Your task to perform on an android device: toggle show notifications on the lock screen Image 0: 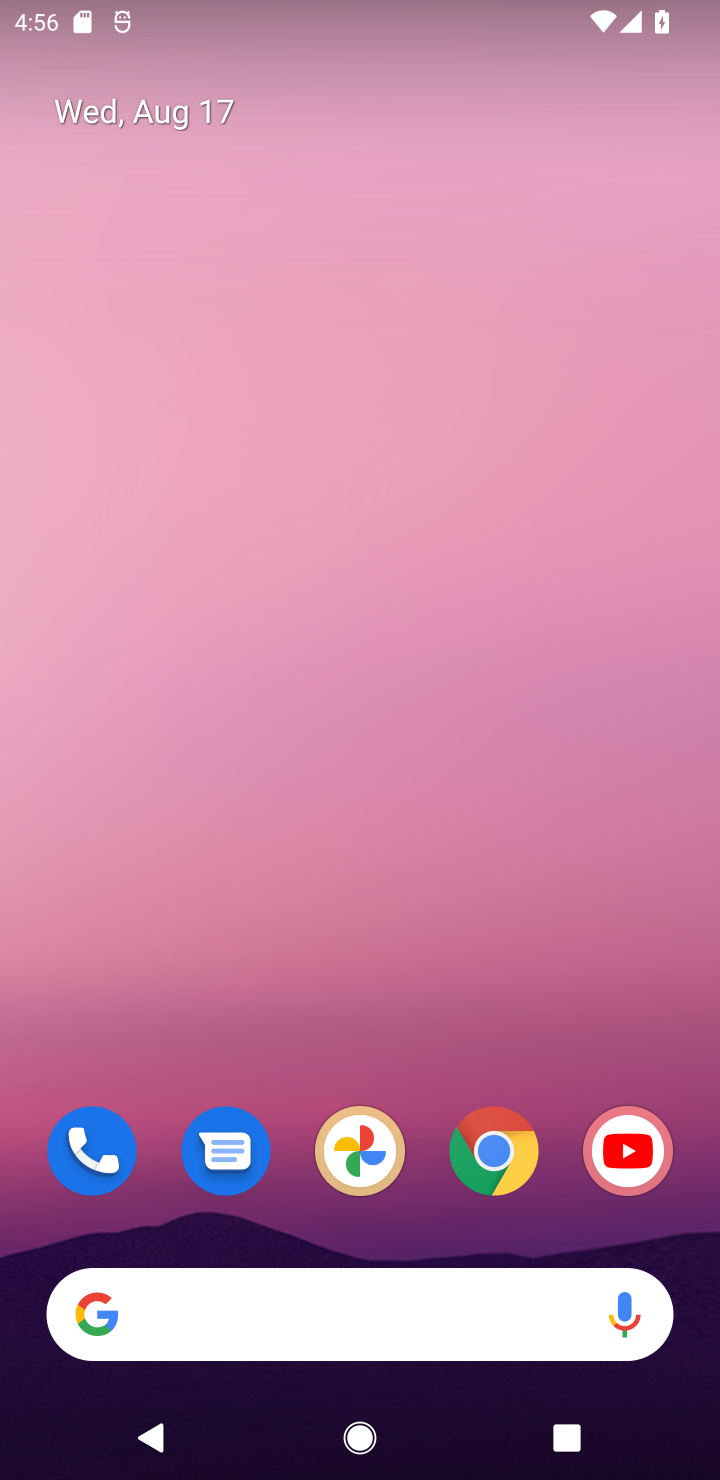
Step 0: drag from (441, 1228) to (612, 389)
Your task to perform on an android device: toggle show notifications on the lock screen Image 1: 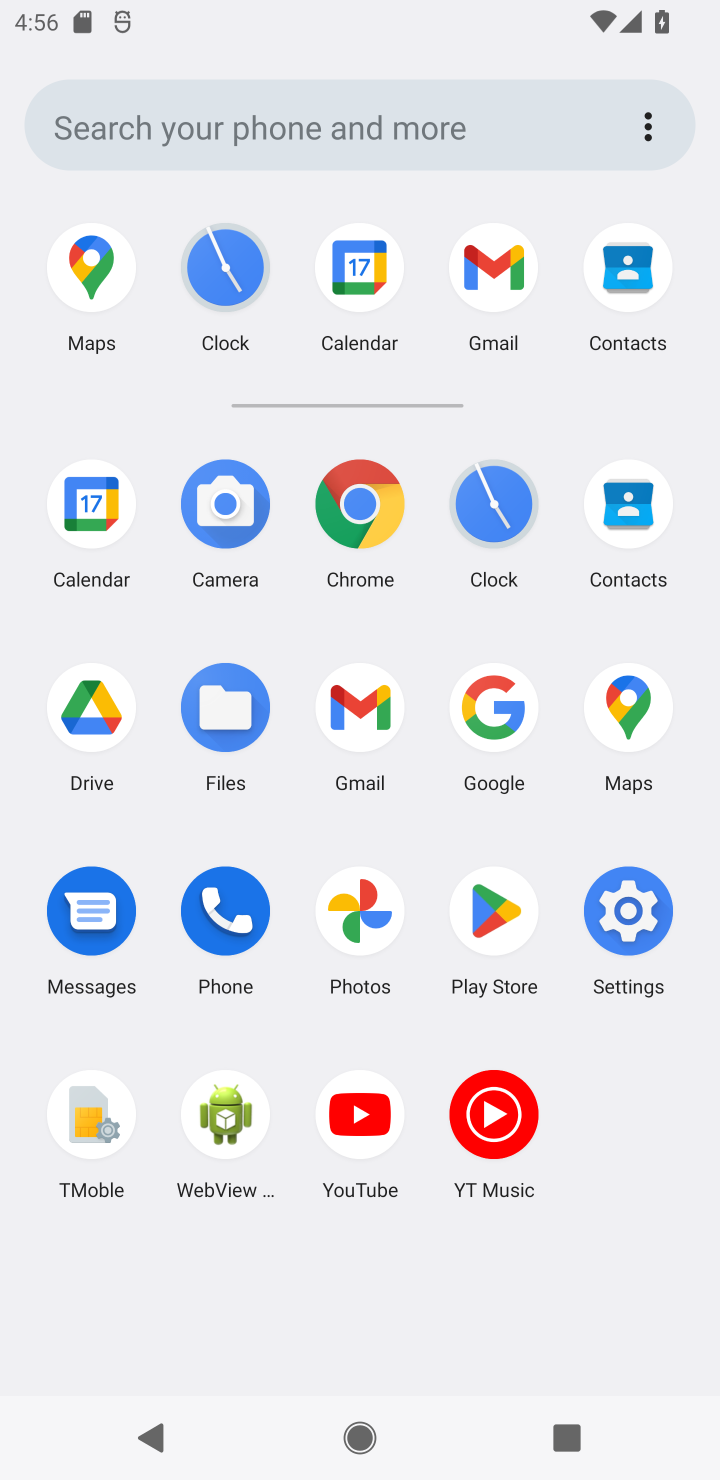
Step 1: click (622, 896)
Your task to perform on an android device: toggle show notifications on the lock screen Image 2: 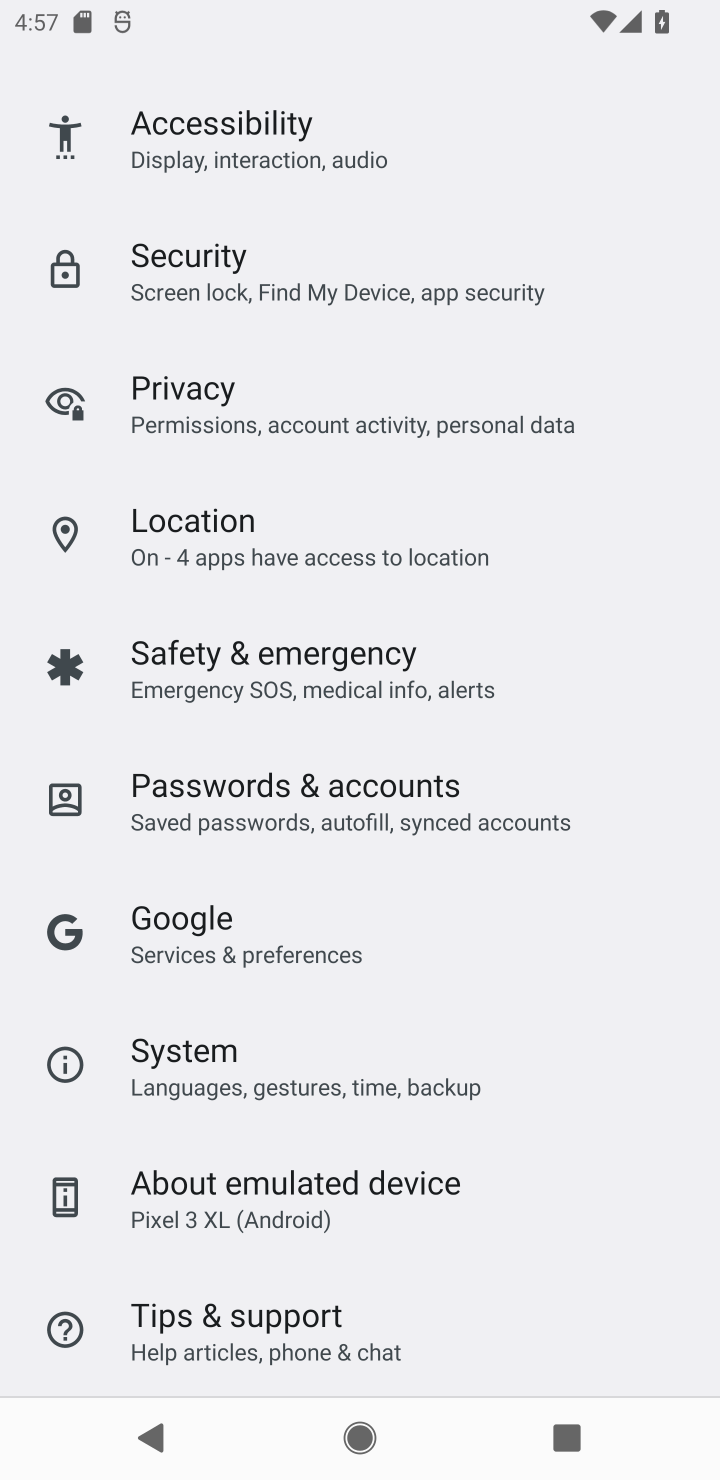
Step 2: click (298, 573)
Your task to perform on an android device: toggle show notifications on the lock screen Image 3: 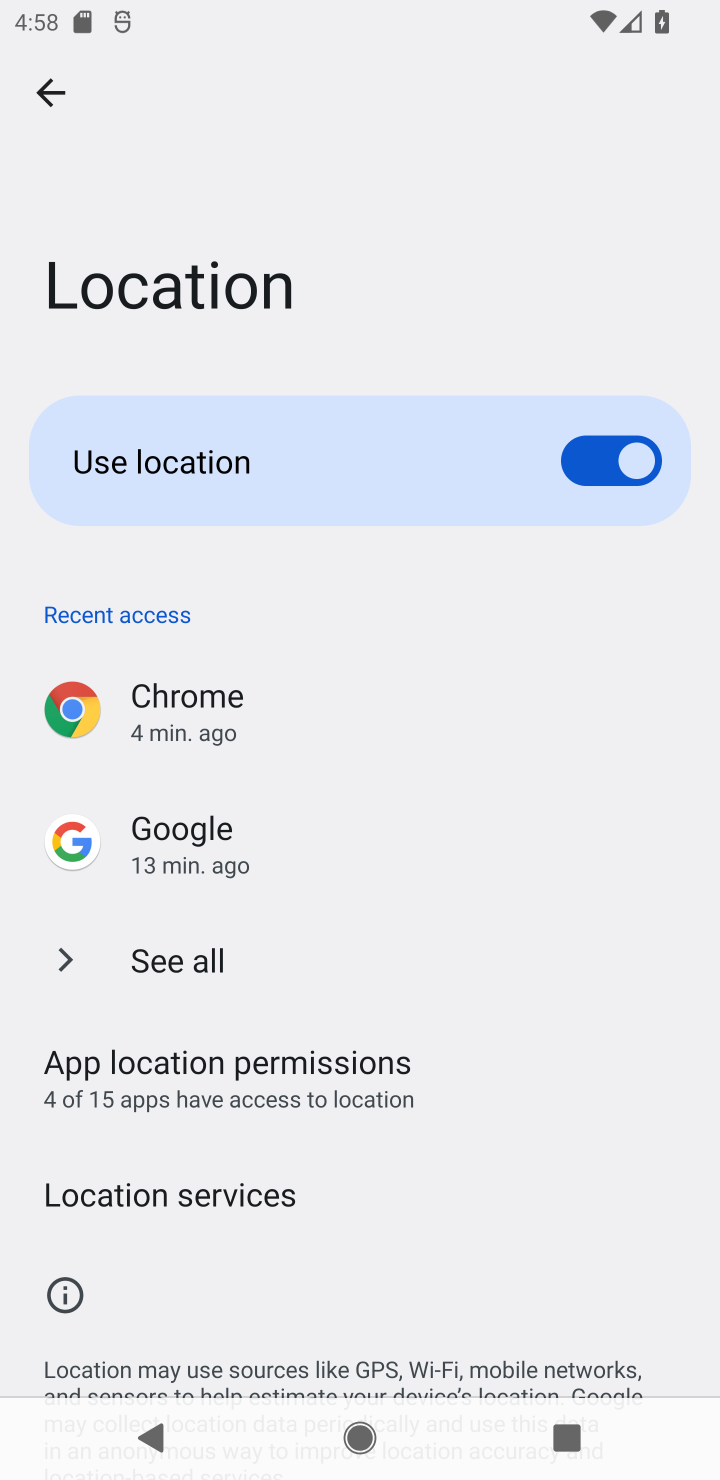
Step 3: task complete